Your task to perform on an android device: turn pop-ups on in chrome Image 0: 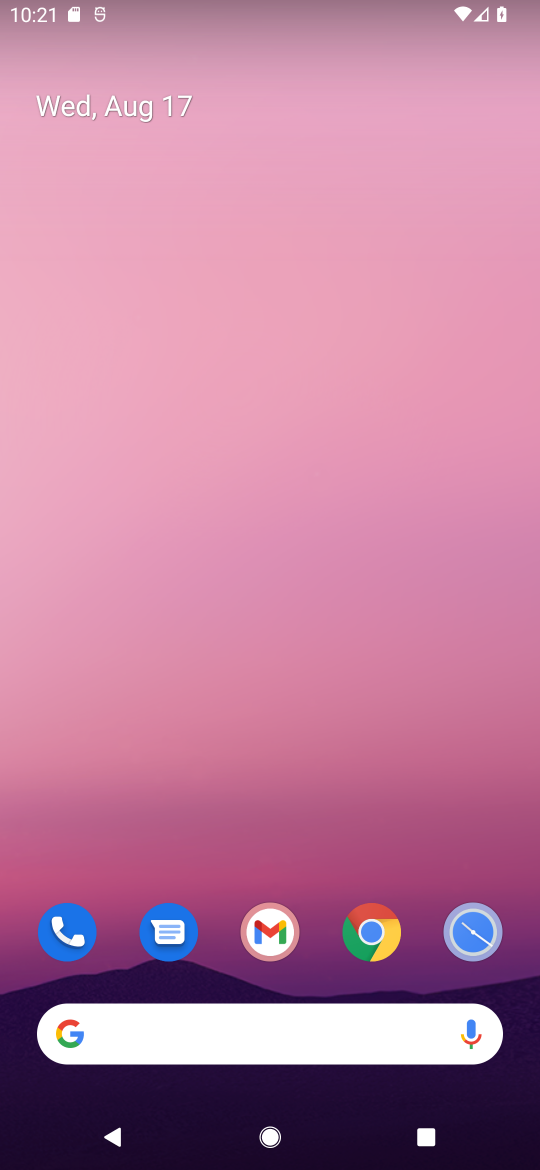
Step 0: click (373, 936)
Your task to perform on an android device: turn pop-ups on in chrome Image 1: 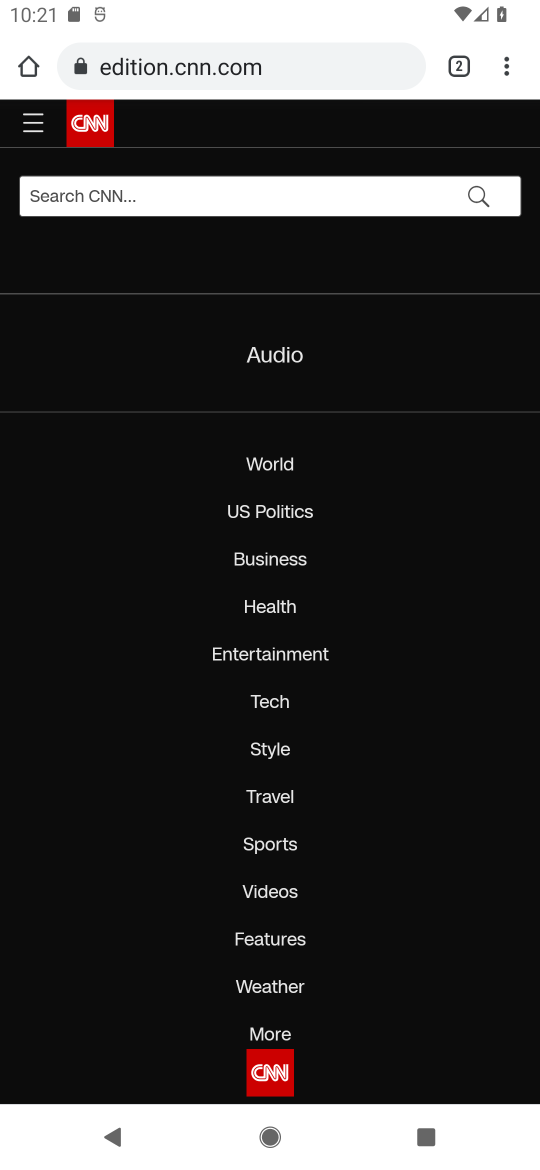
Step 1: click (508, 69)
Your task to perform on an android device: turn pop-ups on in chrome Image 2: 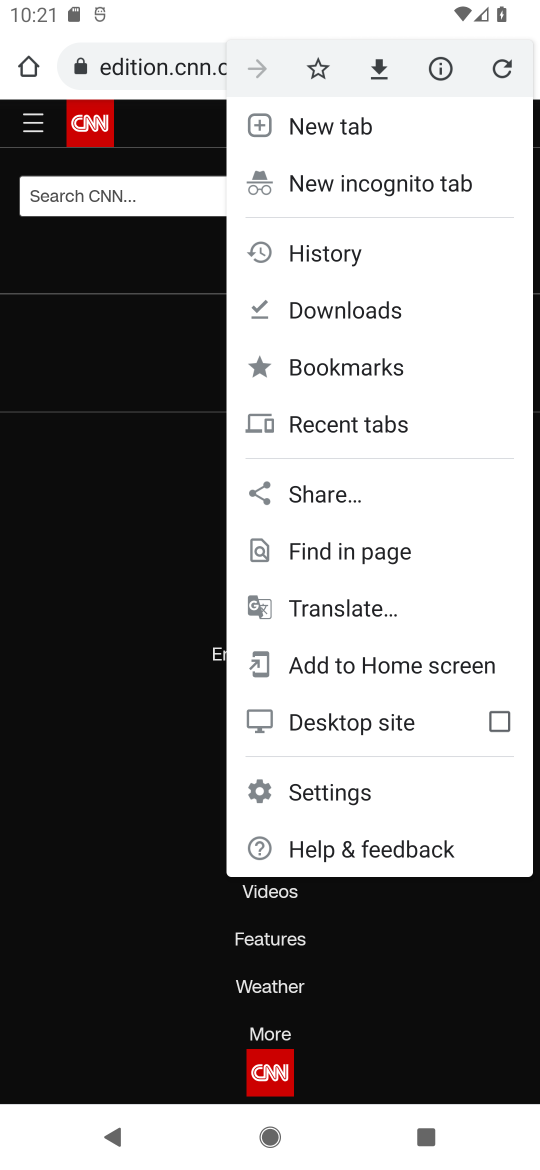
Step 2: click (327, 784)
Your task to perform on an android device: turn pop-ups on in chrome Image 3: 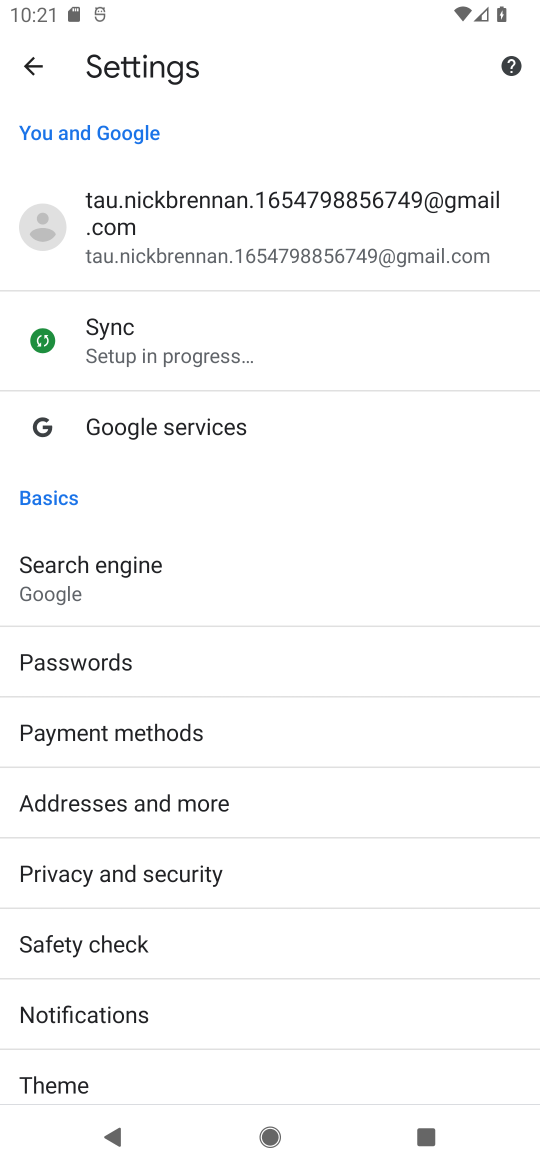
Step 3: drag from (142, 1046) to (149, 599)
Your task to perform on an android device: turn pop-ups on in chrome Image 4: 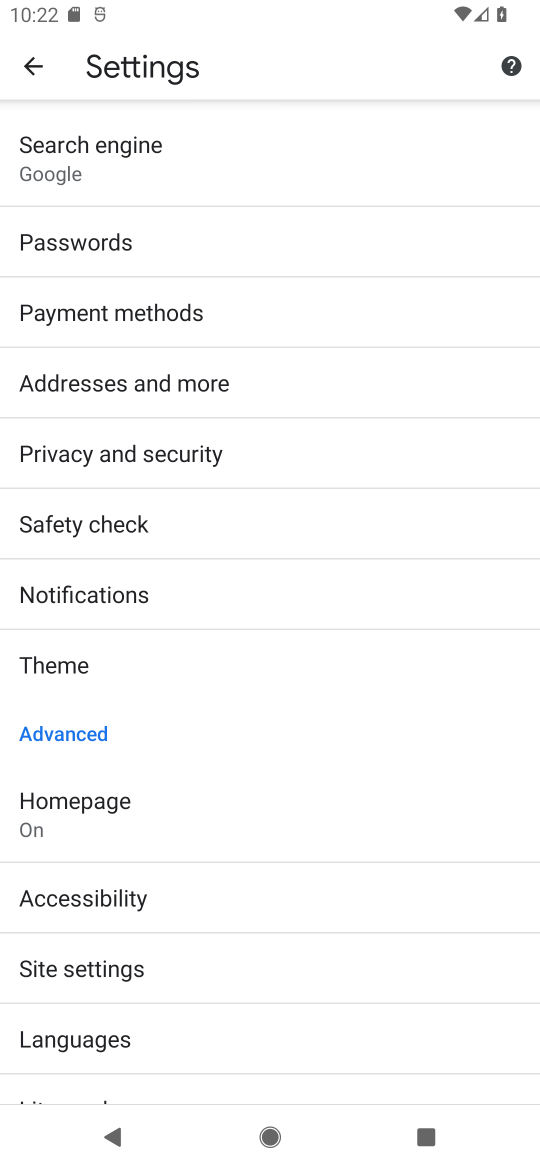
Step 4: click (110, 973)
Your task to perform on an android device: turn pop-ups on in chrome Image 5: 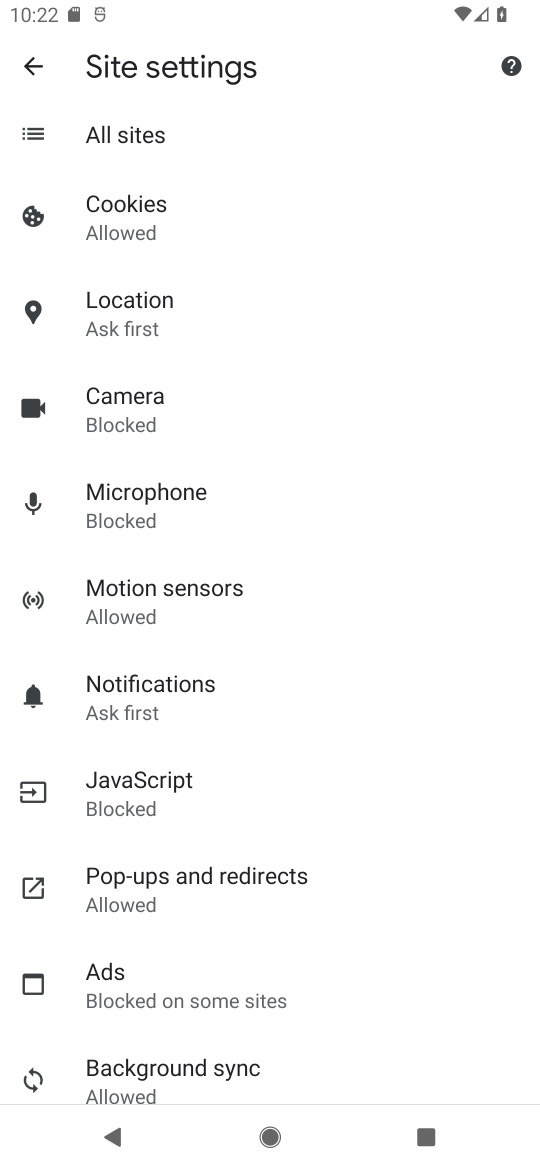
Step 5: click (161, 889)
Your task to perform on an android device: turn pop-ups on in chrome Image 6: 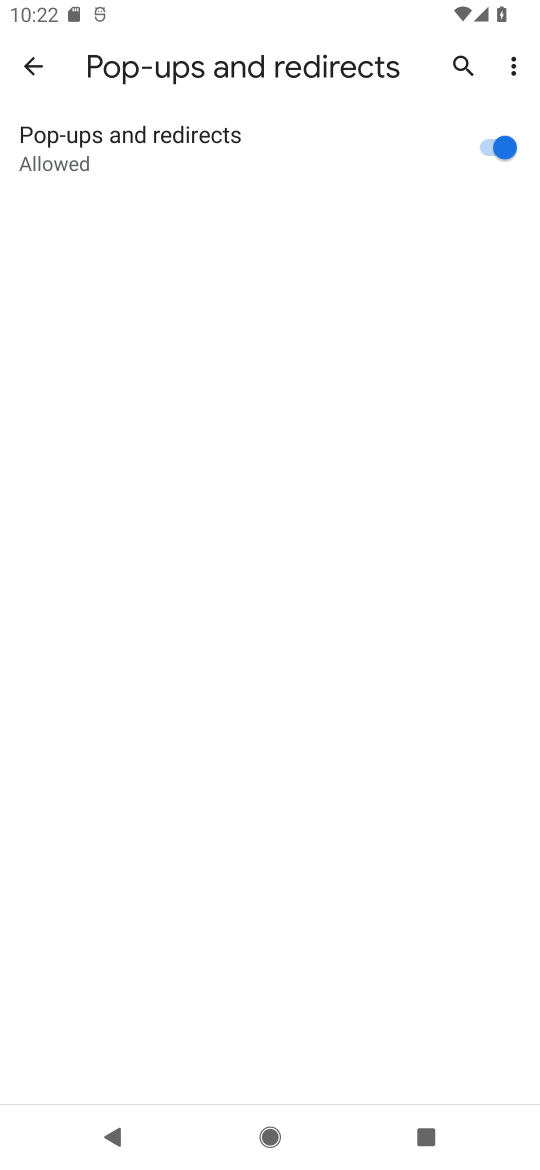
Step 6: task complete